Your task to perform on an android device: open app "Booking.com: Hotels and more" (install if not already installed) Image 0: 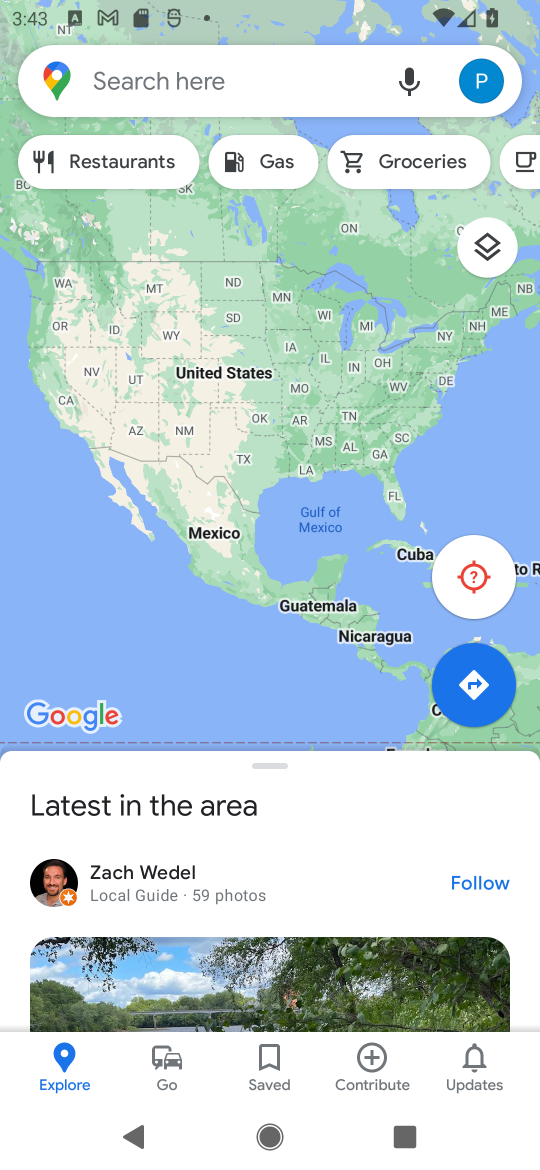
Step 0: press home button
Your task to perform on an android device: open app "Booking.com: Hotels and more" (install if not already installed) Image 1: 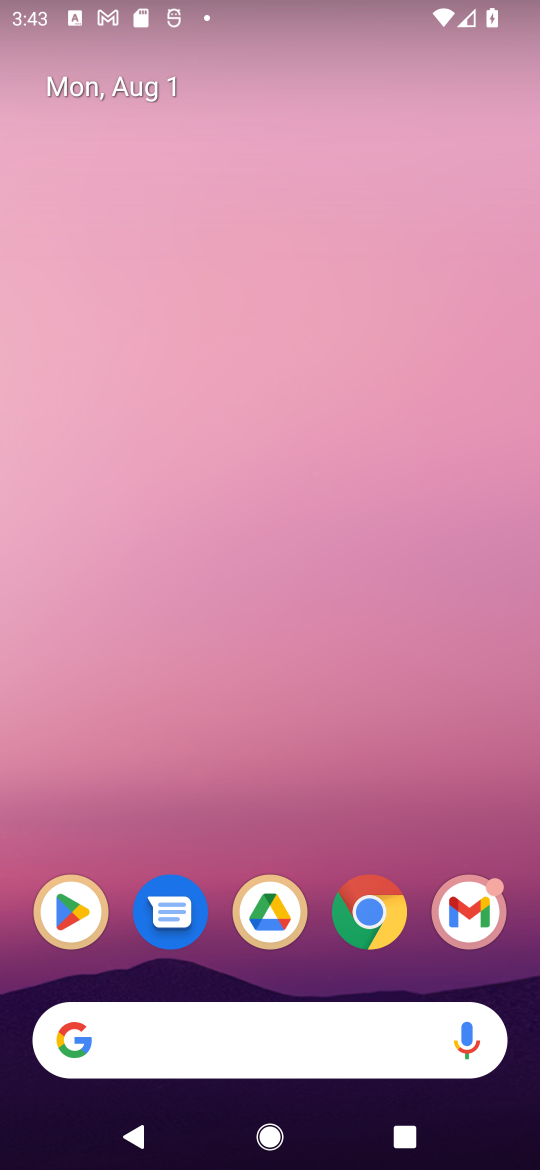
Step 1: click (66, 924)
Your task to perform on an android device: open app "Booking.com: Hotels and more" (install if not already installed) Image 2: 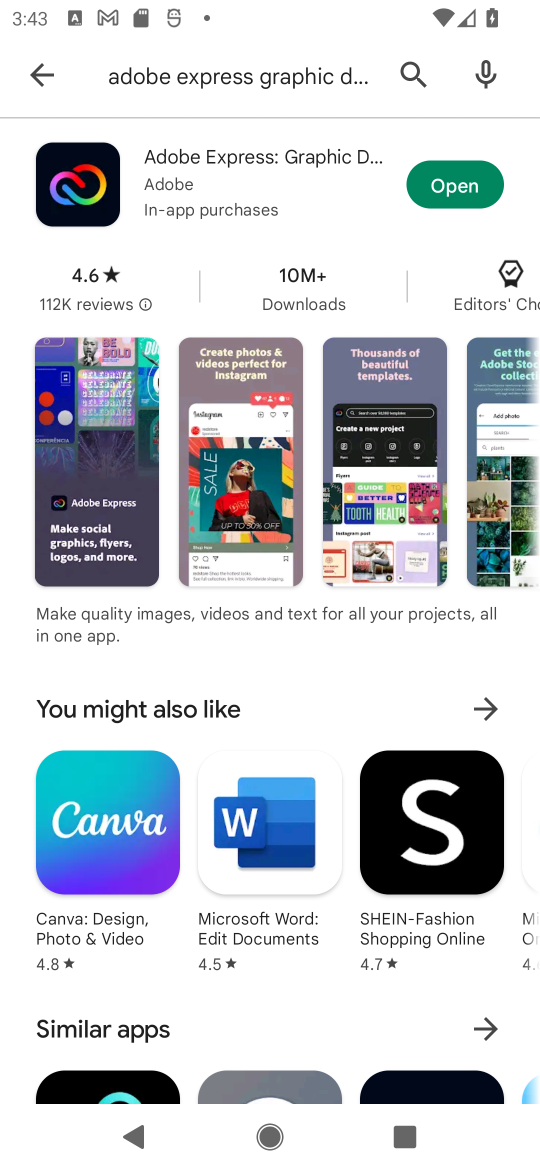
Step 2: drag from (289, 1167) to (409, 1116)
Your task to perform on an android device: open app "Booking.com: Hotels and more" (install if not already installed) Image 3: 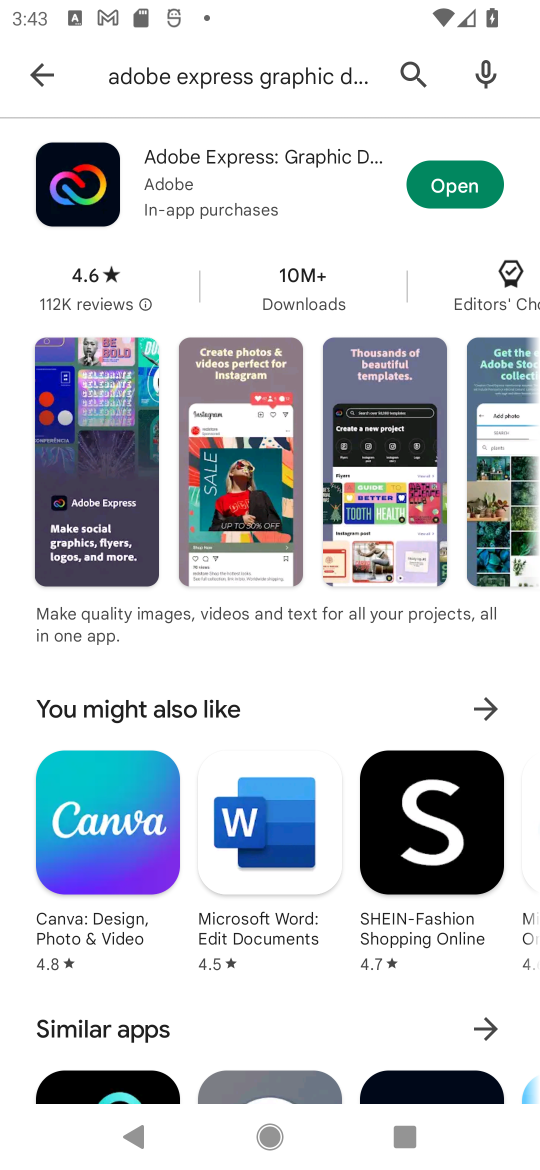
Step 3: click (406, 75)
Your task to perform on an android device: open app "Booking.com: Hotels and more" (install if not already installed) Image 4: 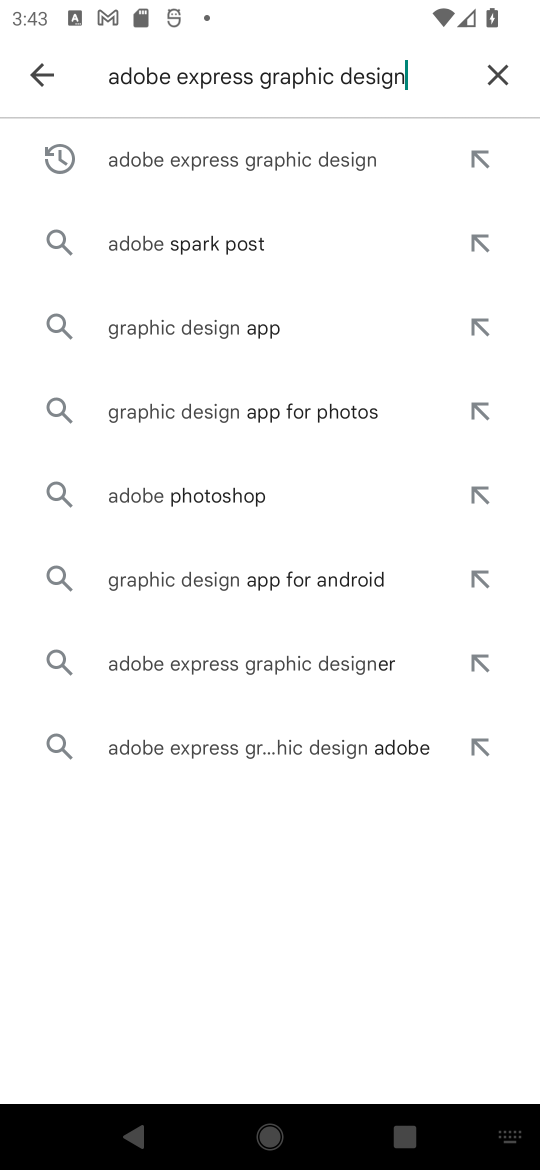
Step 4: click (498, 66)
Your task to perform on an android device: open app "Booking.com: Hotels and more" (install if not already installed) Image 5: 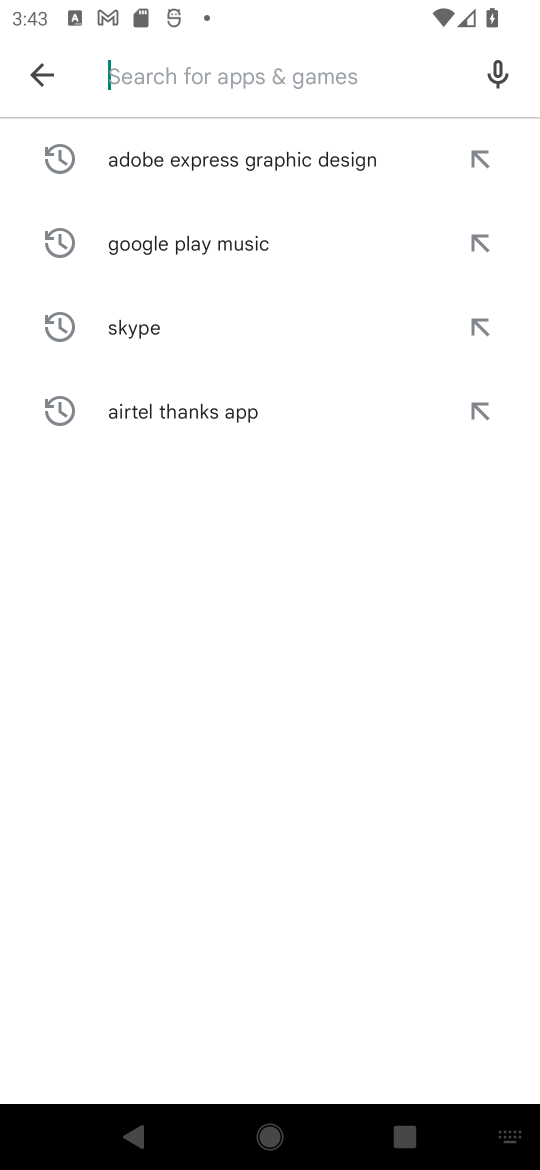
Step 5: click (225, 85)
Your task to perform on an android device: open app "Booking.com: Hotels and more" (install if not already installed) Image 6: 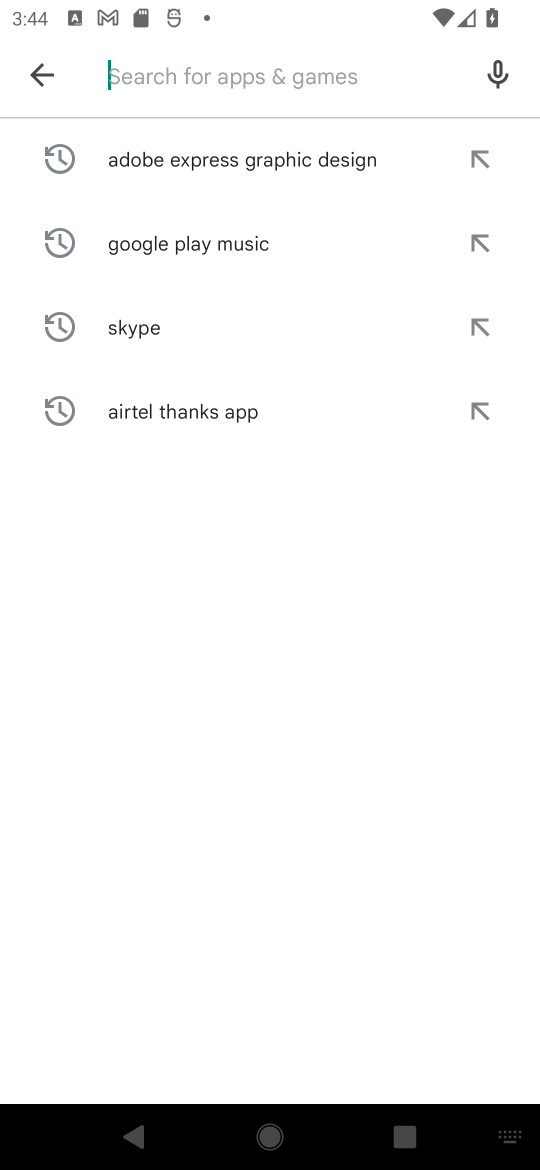
Step 6: type "Booking.com: Hotels and more"
Your task to perform on an android device: open app "Booking.com: Hotels and more" (install if not already installed) Image 7: 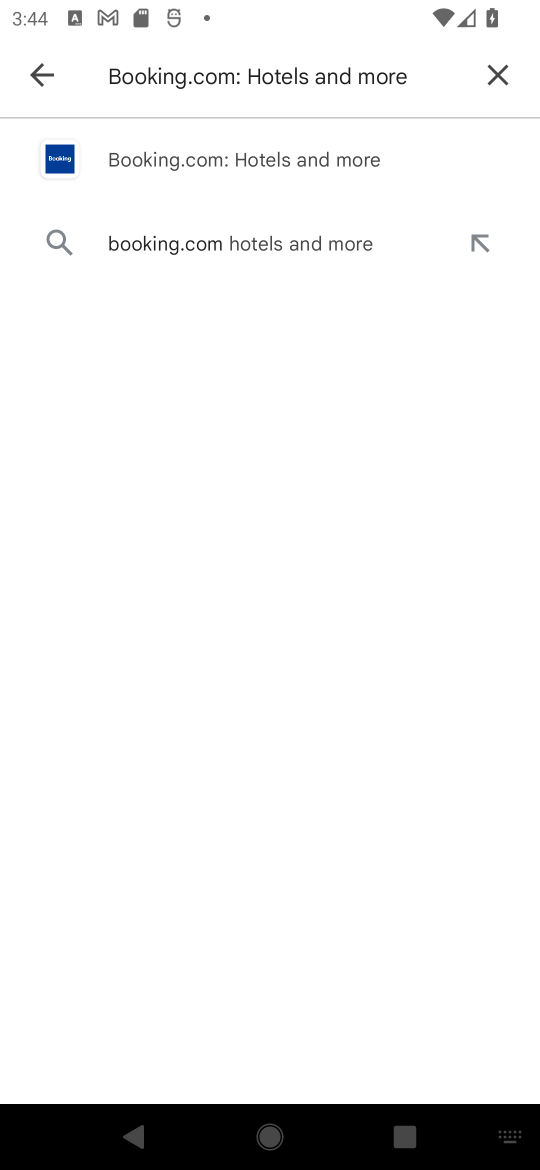
Step 7: click (305, 159)
Your task to perform on an android device: open app "Booking.com: Hotels and more" (install if not already installed) Image 8: 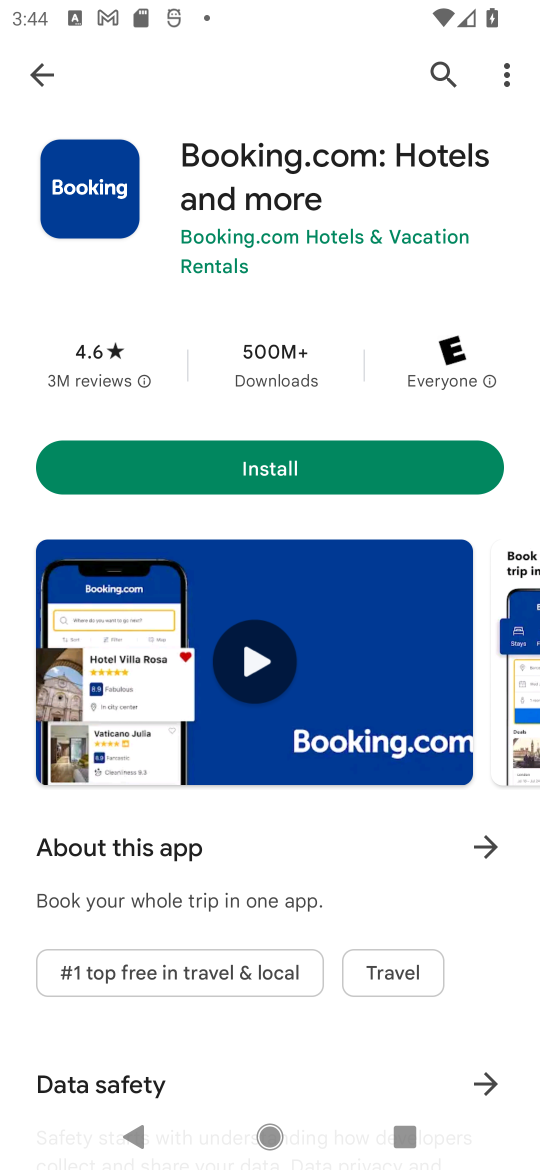
Step 8: click (242, 479)
Your task to perform on an android device: open app "Booking.com: Hotels and more" (install if not already installed) Image 9: 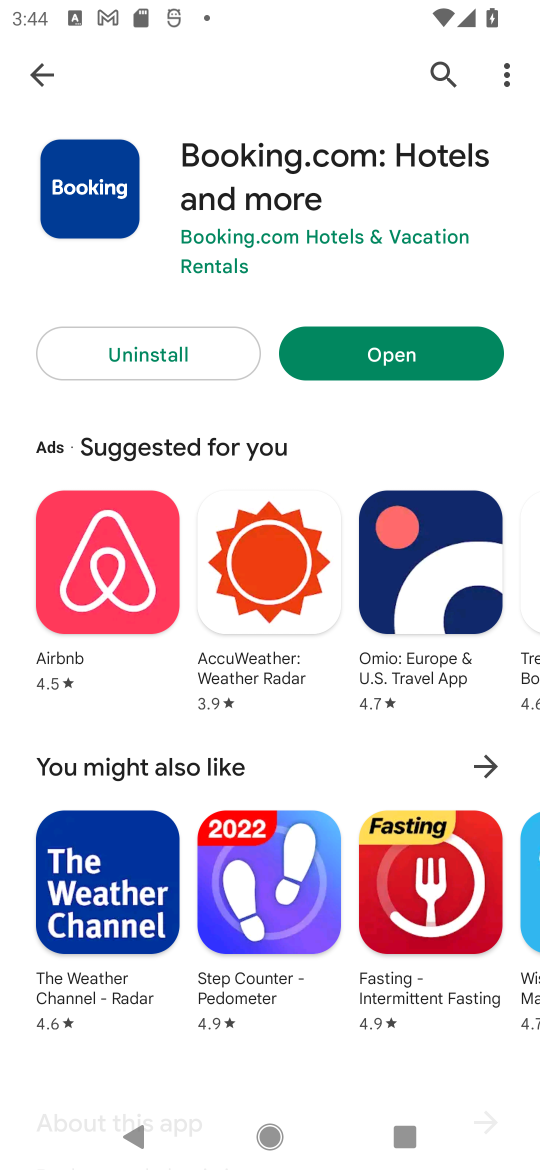
Step 9: click (384, 354)
Your task to perform on an android device: open app "Booking.com: Hotels and more" (install if not already installed) Image 10: 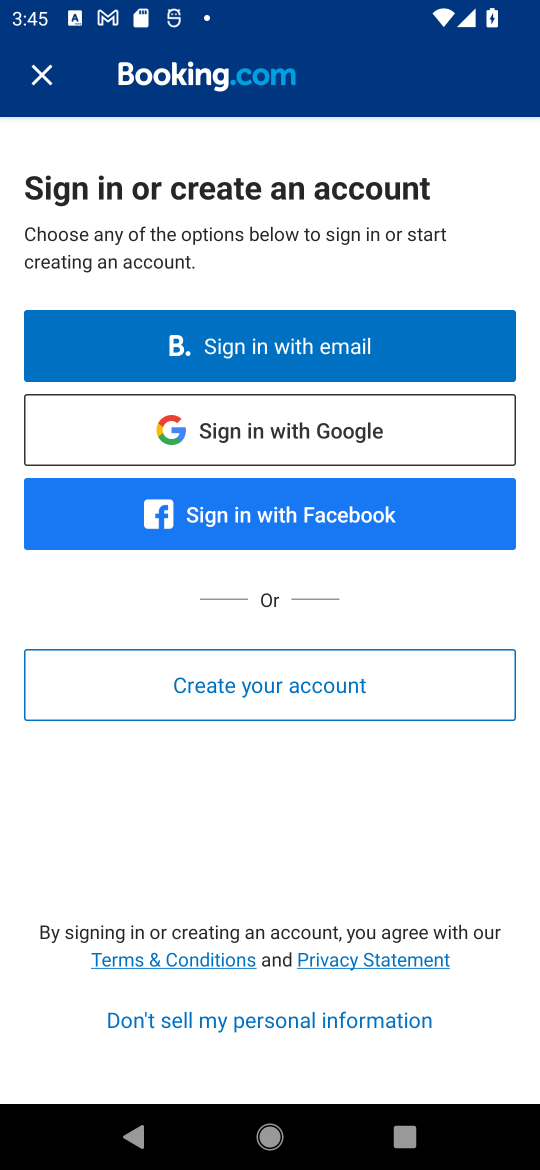
Step 10: task complete